Your task to perform on an android device: When is my next meeting? Image 0: 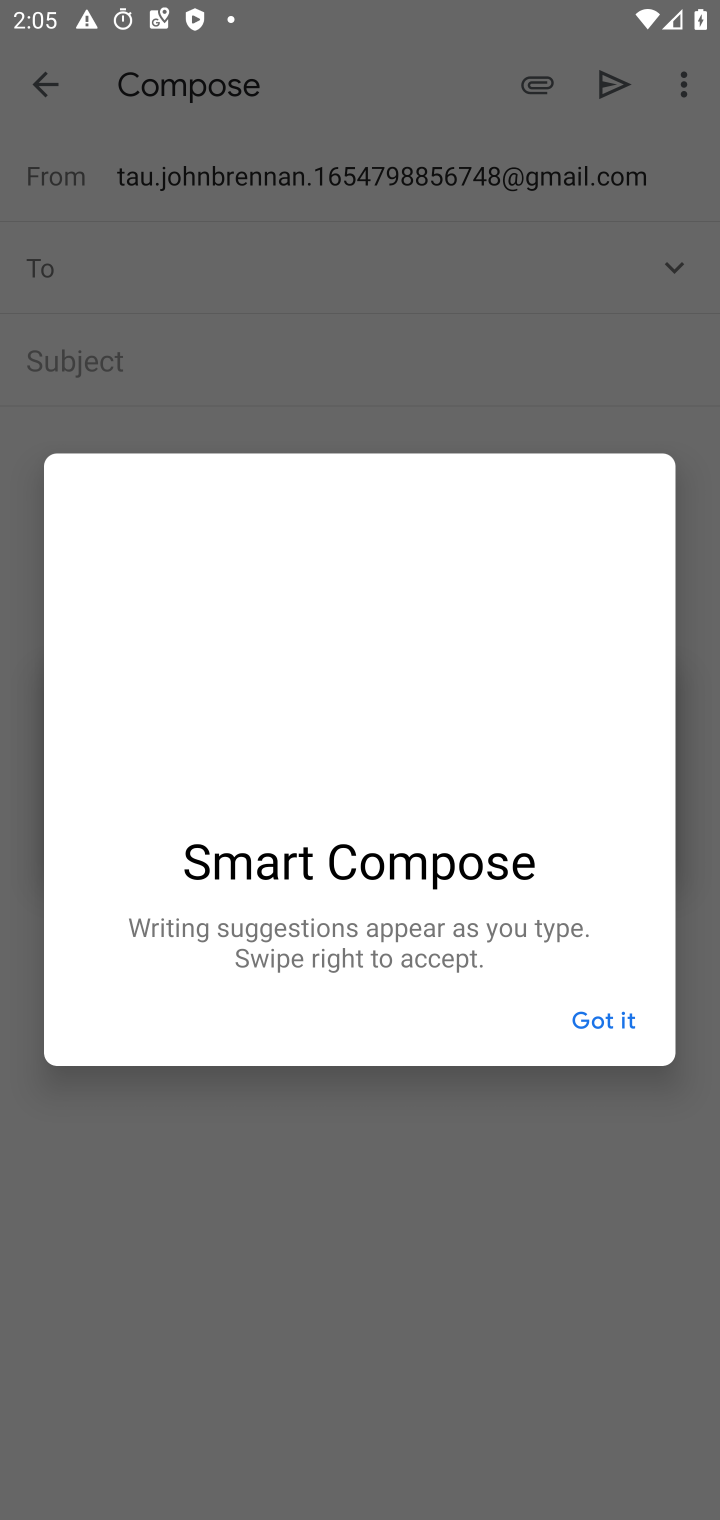
Step 0: press home button
Your task to perform on an android device: When is my next meeting? Image 1: 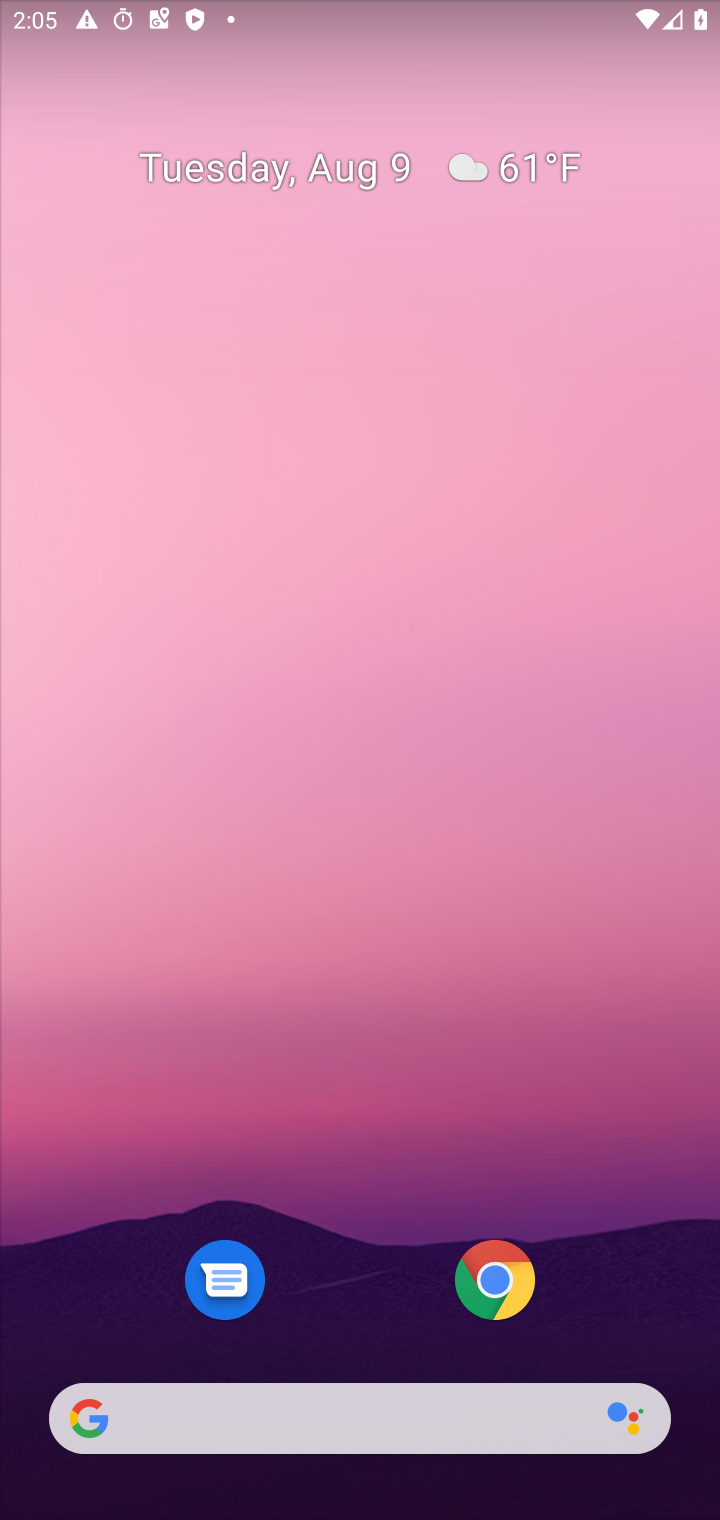
Step 1: click (243, 1399)
Your task to perform on an android device: When is my next meeting? Image 2: 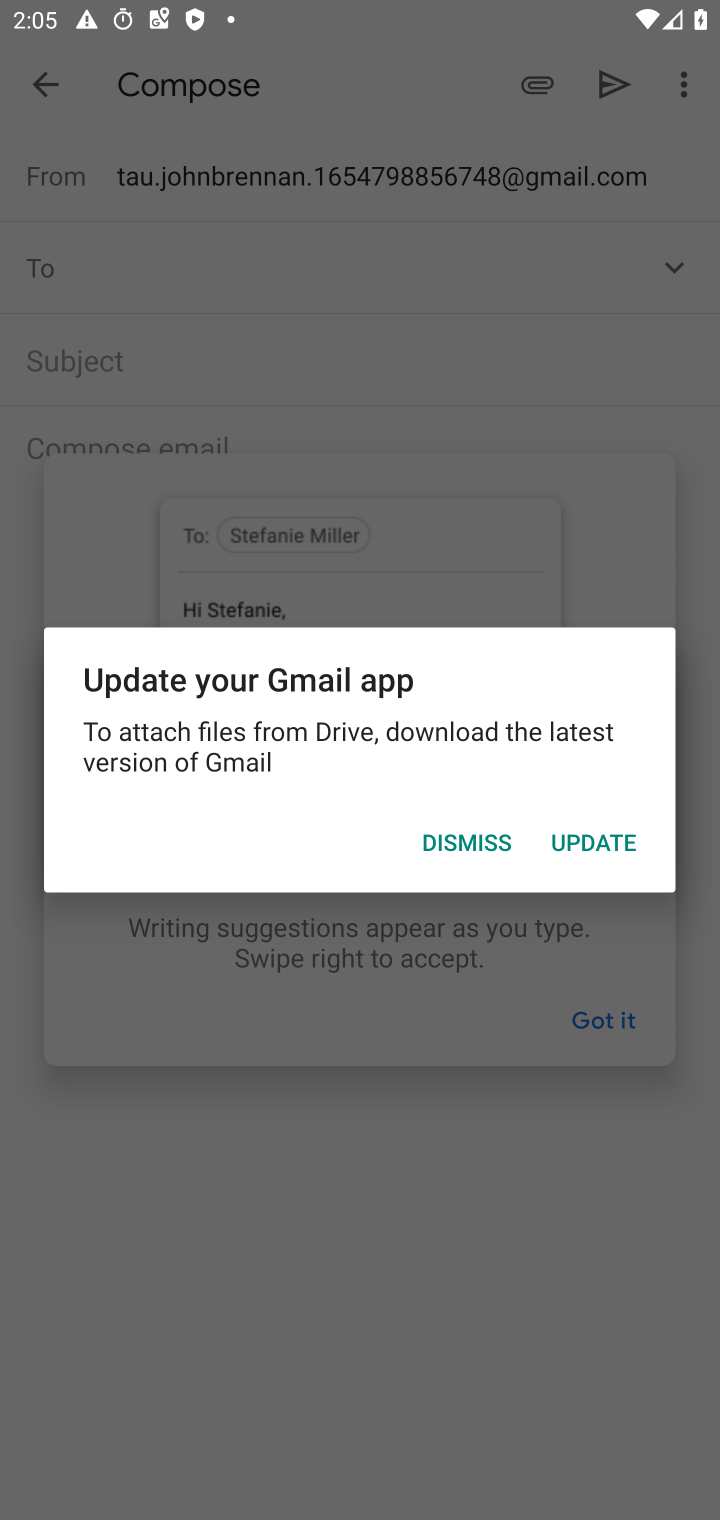
Step 2: press home button
Your task to perform on an android device: When is my next meeting? Image 3: 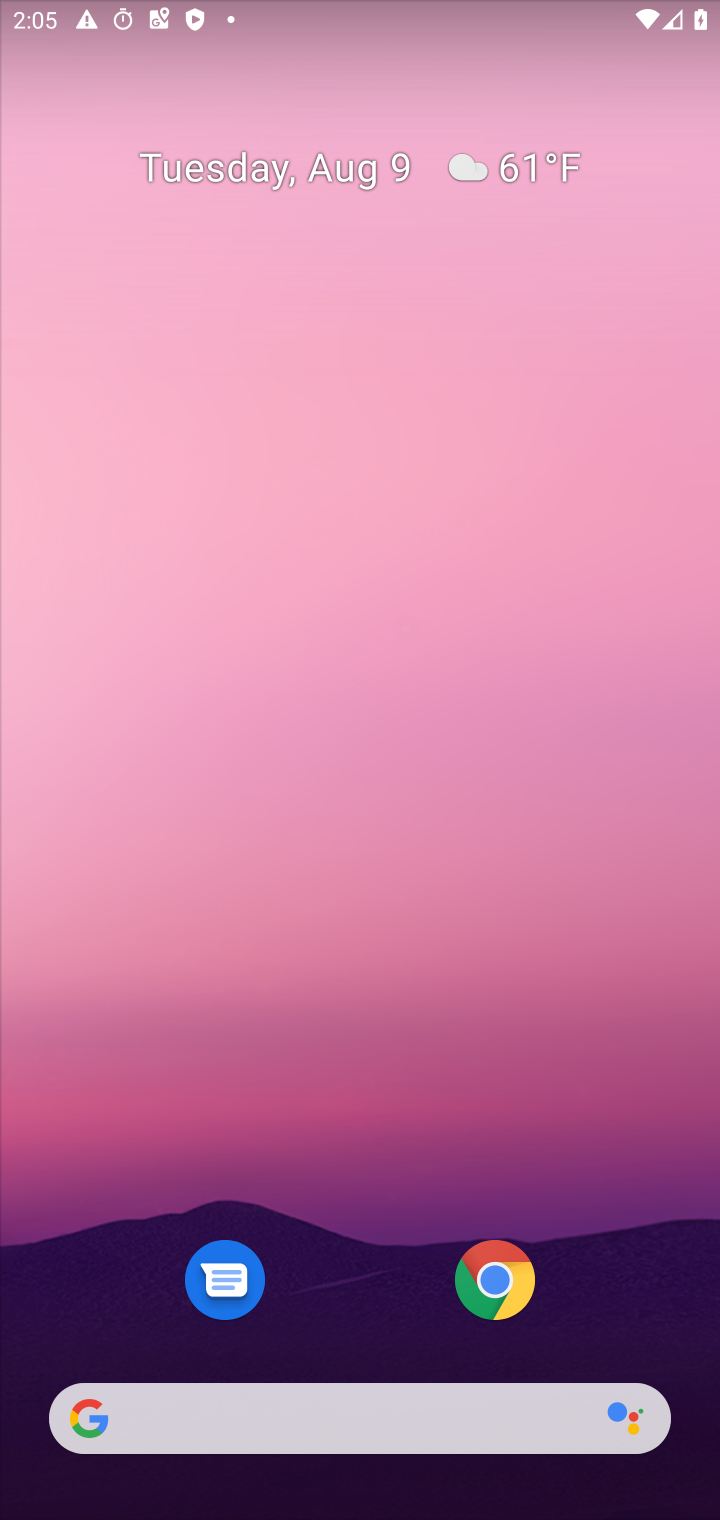
Step 3: drag from (284, 1434) to (374, 408)
Your task to perform on an android device: When is my next meeting? Image 4: 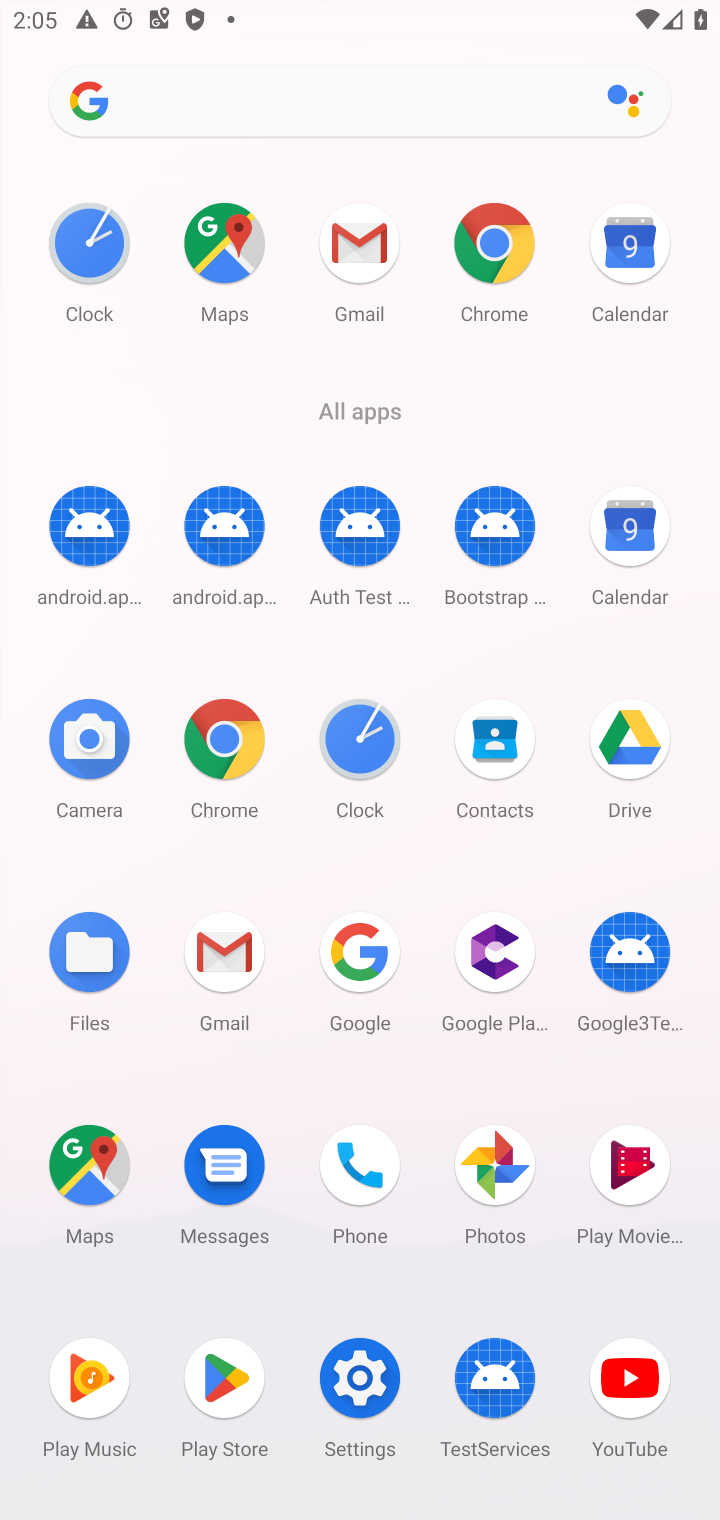
Step 4: click (621, 536)
Your task to perform on an android device: When is my next meeting? Image 5: 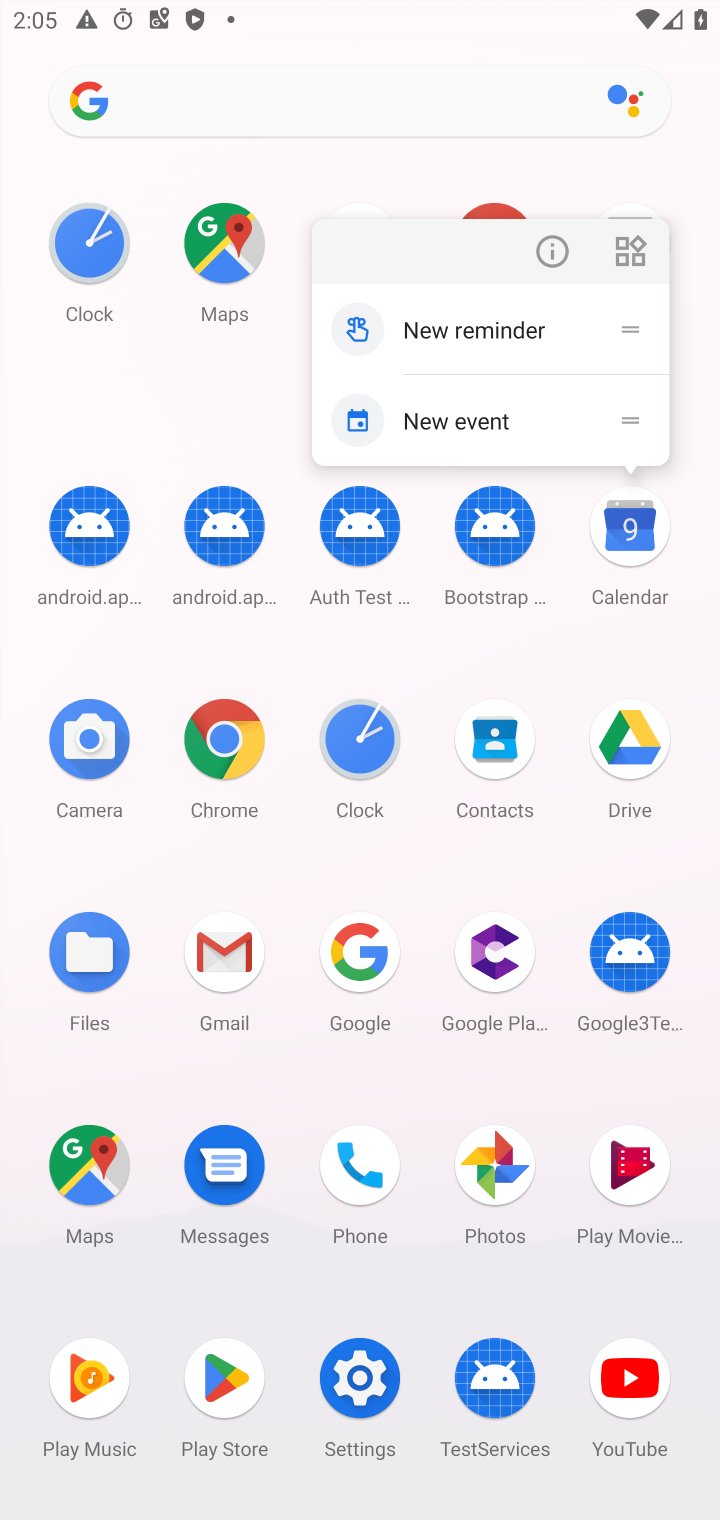
Step 5: click (630, 530)
Your task to perform on an android device: When is my next meeting? Image 6: 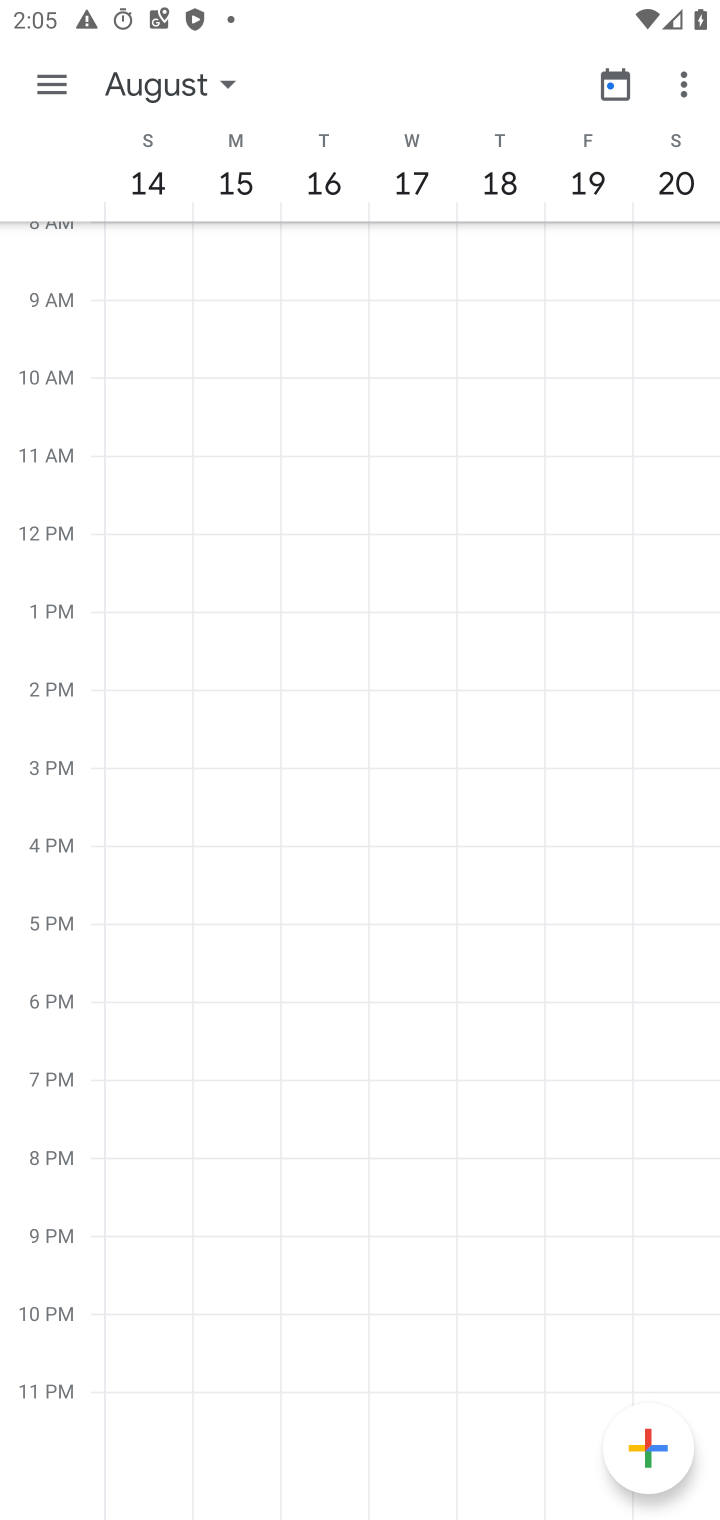
Step 6: click (630, 541)
Your task to perform on an android device: When is my next meeting? Image 7: 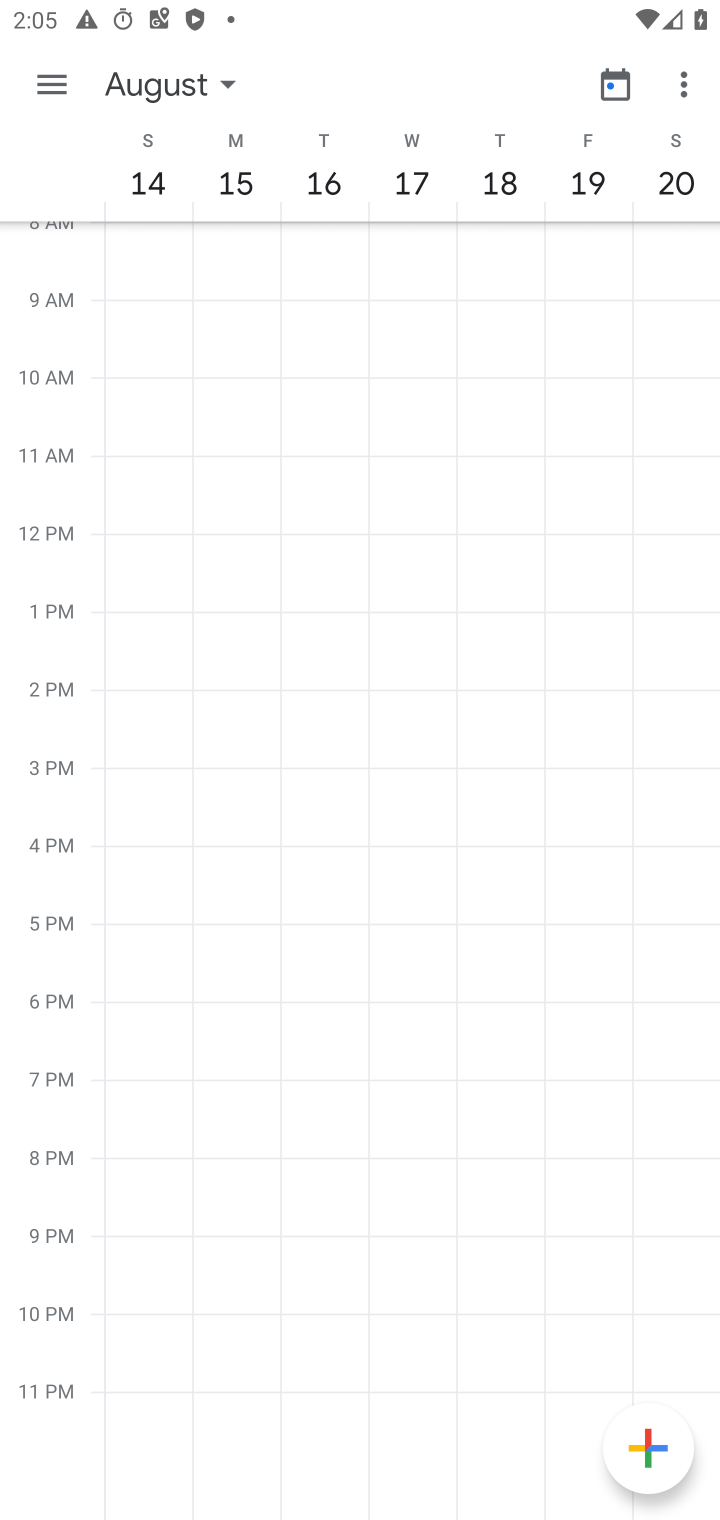
Step 7: click (39, 69)
Your task to perform on an android device: When is my next meeting? Image 8: 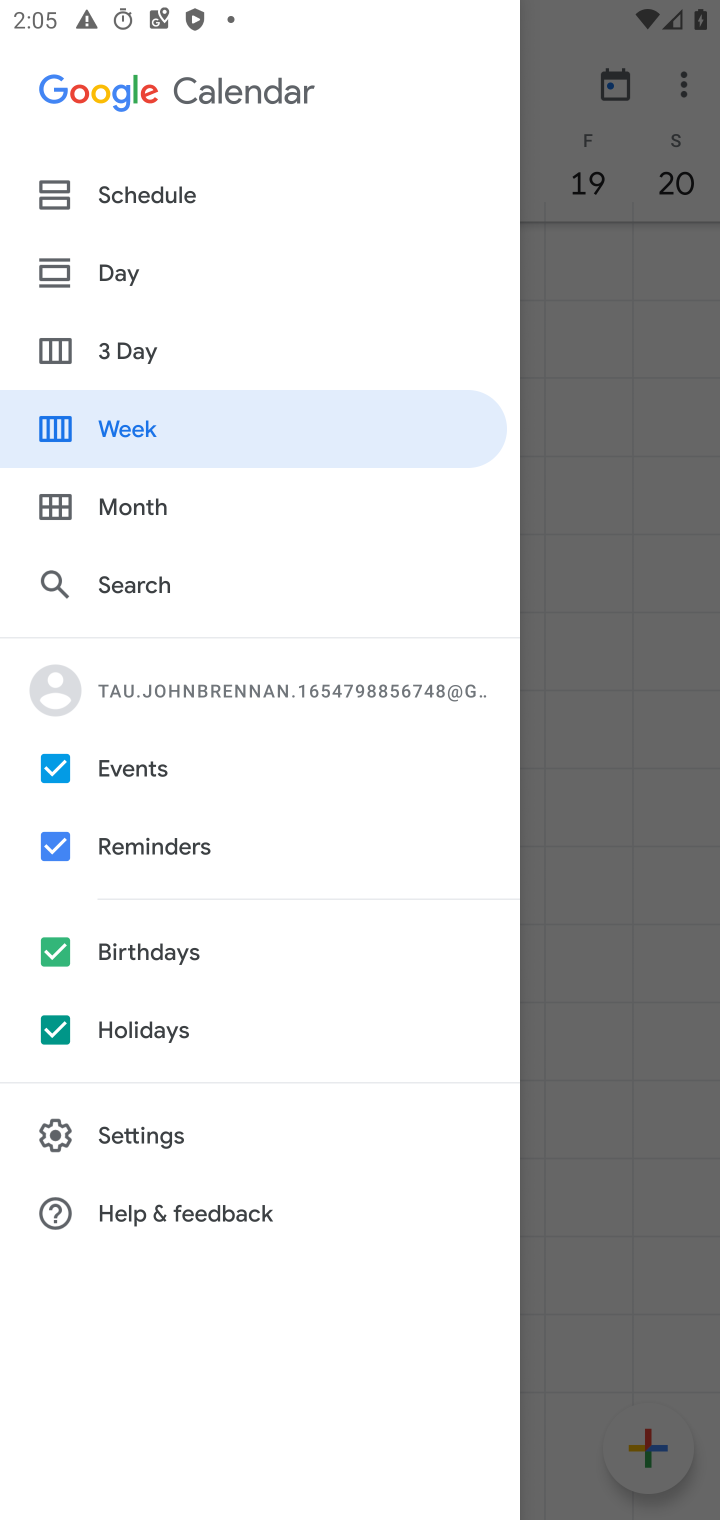
Step 8: click (134, 199)
Your task to perform on an android device: When is my next meeting? Image 9: 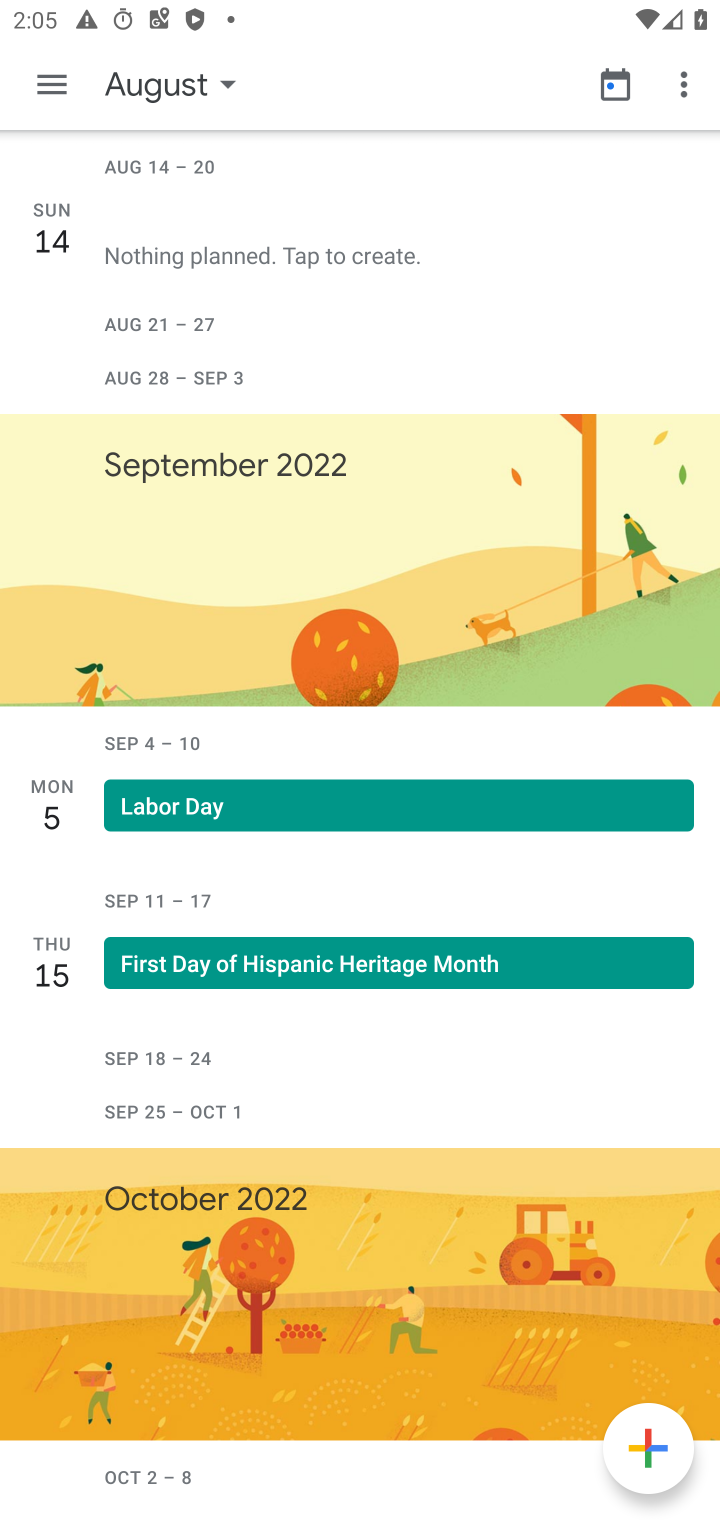
Step 9: task complete